Your task to perform on an android device: turn off location Image 0: 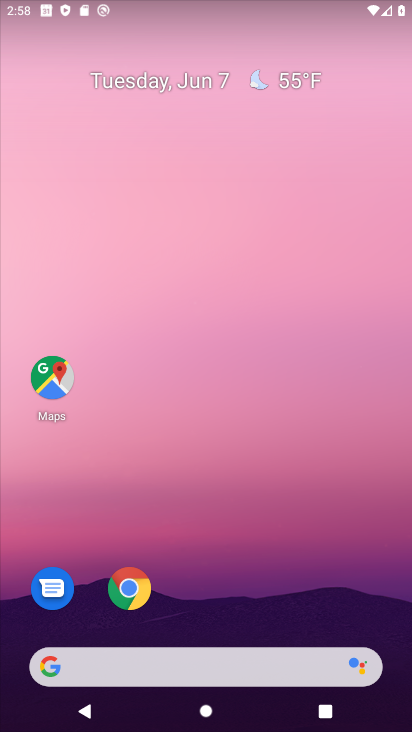
Step 0: press home button
Your task to perform on an android device: turn off location Image 1: 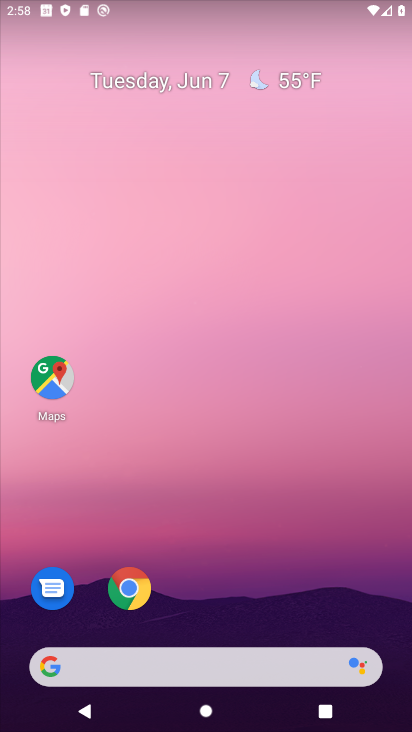
Step 1: drag from (280, 590) to (271, 154)
Your task to perform on an android device: turn off location Image 2: 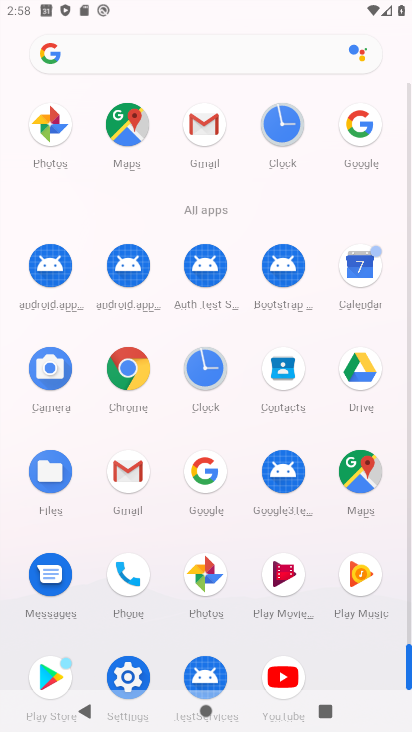
Step 2: click (130, 662)
Your task to perform on an android device: turn off location Image 3: 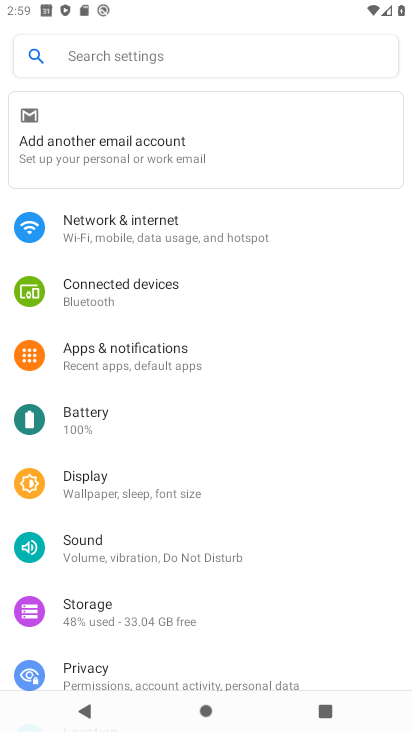
Step 3: drag from (323, 595) to (350, 22)
Your task to perform on an android device: turn off location Image 4: 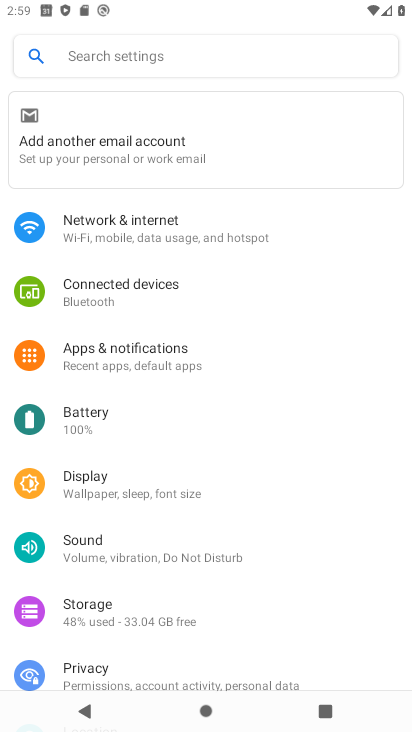
Step 4: drag from (342, 511) to (322, 83)
Your task to perform on an android device: turn off location Image 5: 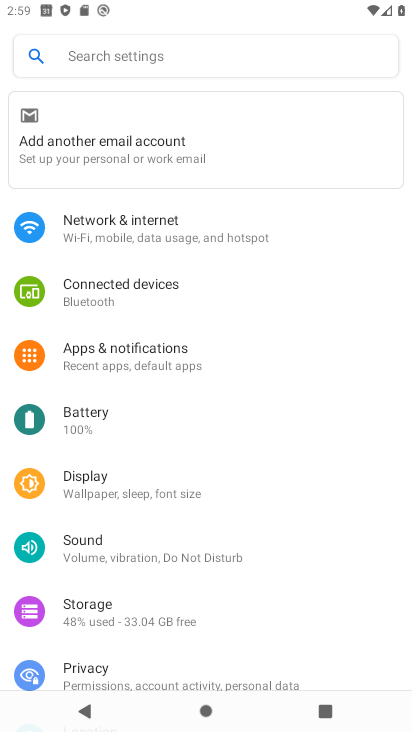
Step 5: drag from (255, 611) to (253, 155)
Your task to perform on an android device: turn off location Image 6: 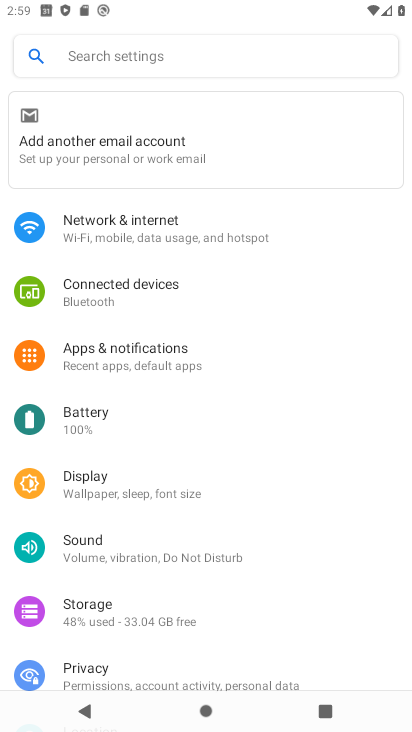
Step 6: drag from (340, 567) to (342, 81)
Your task to perform on an android device: turn off location Image 7: 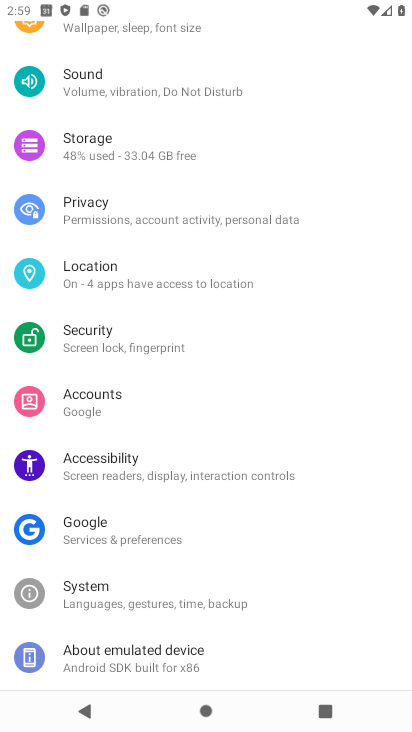
Step 7: click (165, 278)
Your task to perform on an android device: turn off location Image 8: 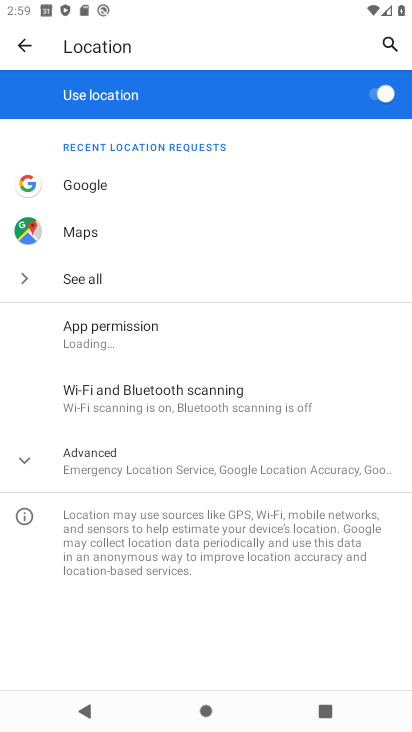
Step 8: click (379, 96)
Your task to perform on an android device: turn off location Image 9: 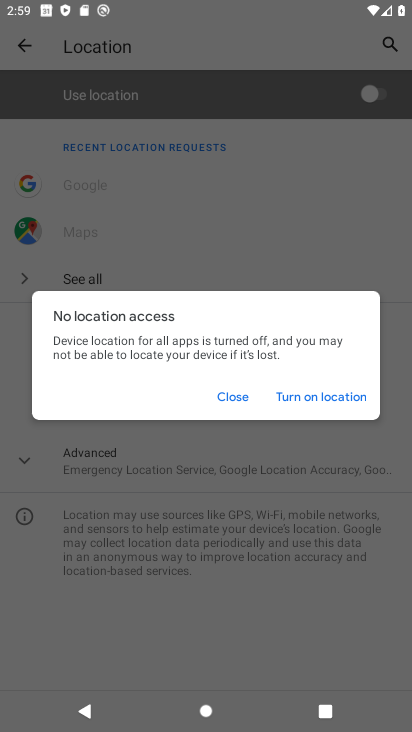
Step 9: click (226, 392)
Your task to perform on an android device: turn off location Image 10: 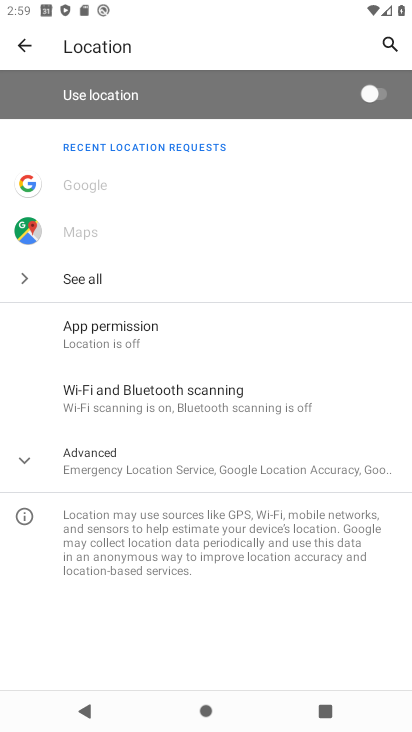
Step 10: task complete